Your task to perform on an android device: stop showing notifications on the lock screen Image 0: 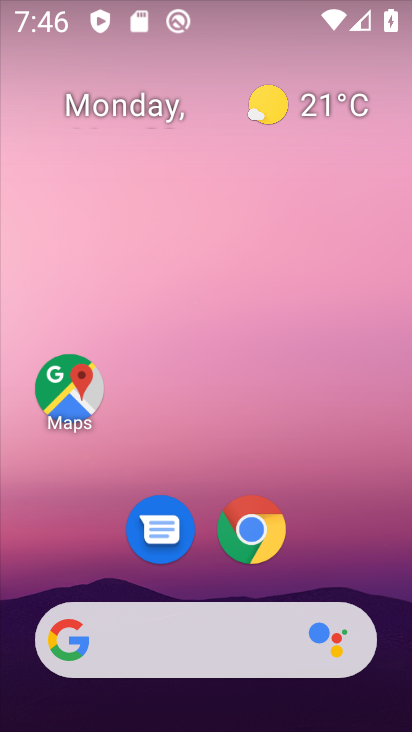
Step 0: drag from (345, 574) to (379, 28)
Your task to perform on an android device: stop showing notifications on the lock screen Image 1: 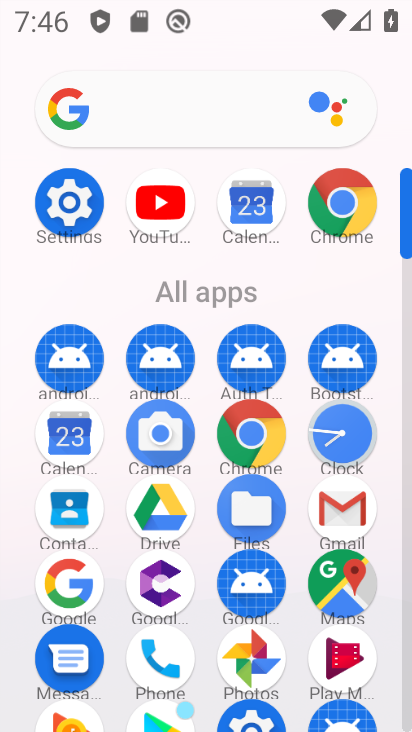
Step 1: click (68, 185)
Your task to perform on an android device: stop showing notifications on the lock screen Image 2: 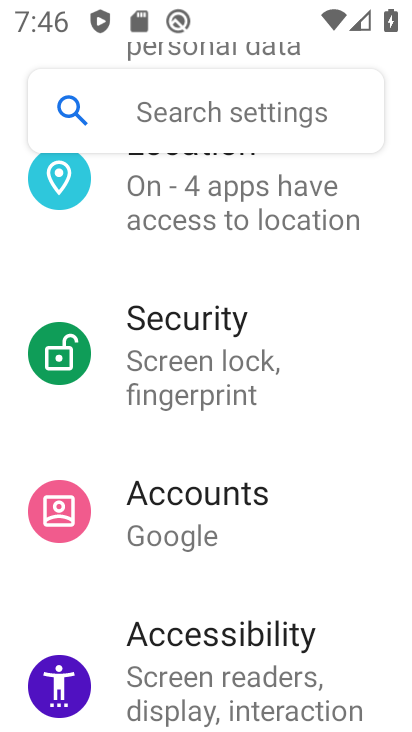
Step 2: drag from (214, 294) to (269, 523)
Your task to perform on an android device: stop showing notifications on the lock screen Image 3: 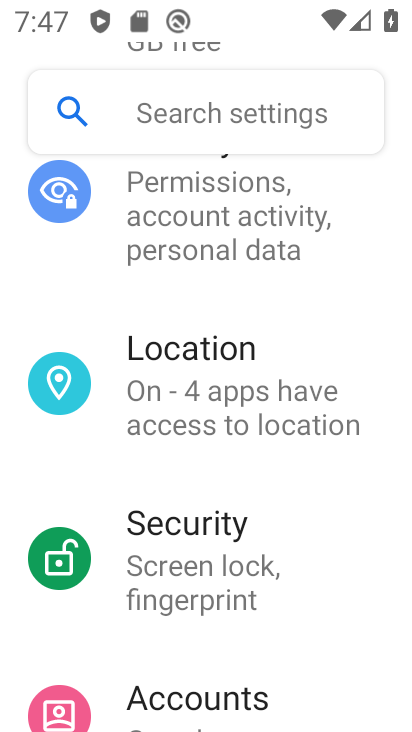
Step 3: drag from (260, 358) to (280, 510)
Your task to perform on an android device: stop showing notifications on the lock screen Image 4: 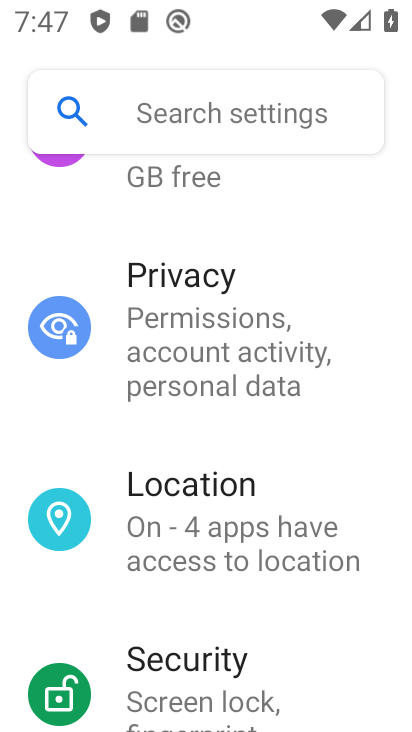
Step 4: drag from (239, 341) to (259, 490)
Your task to perform on an android device: stop showing notifications on the lock screen Image 5: 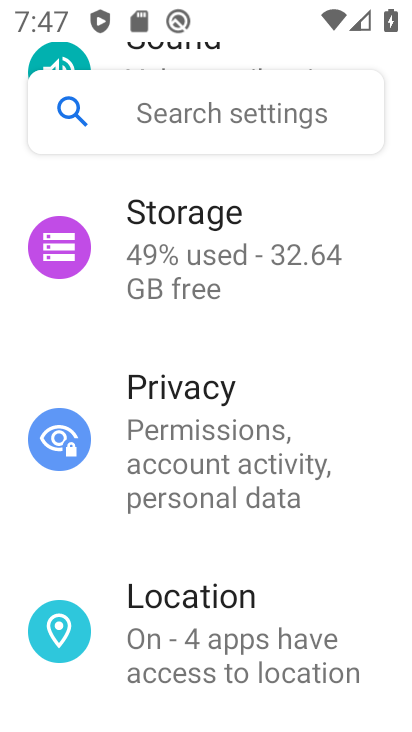
Step 5: drag from (226, 275) to (269, 420)
Your task to perform on an android device: stop showing notifications on the lock screen Image 6: 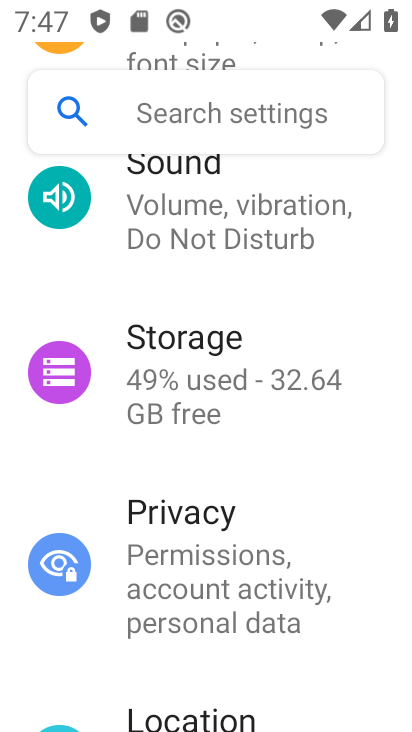
Step 6: drag from (227, 269) to (258, 457)
Your task to perform on an android device: stop showing notifications on the lock screen Image 7: 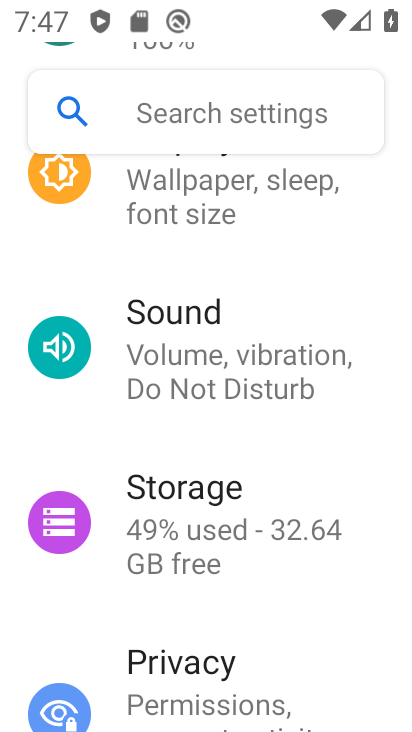
Step 7: drag from (236, 213) to (294, 420)
Your task to perform on an android device: stop showing notifications on the lock screen Image 8: 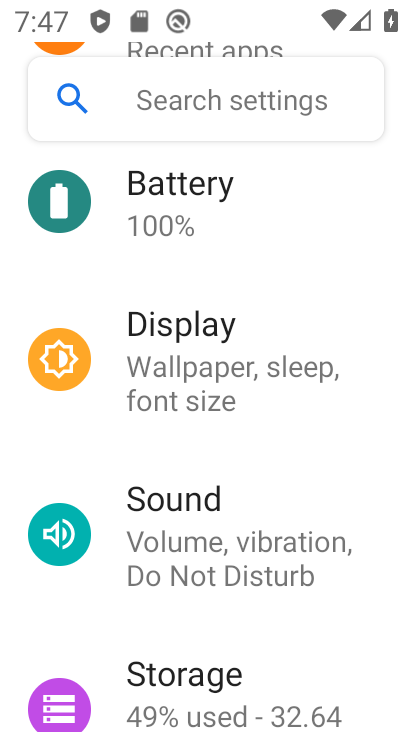
Step 8: drag from (281, 296) to (291, 449)
Your task to perform on an android device: stop showing notifications on the lock screen Image 9: 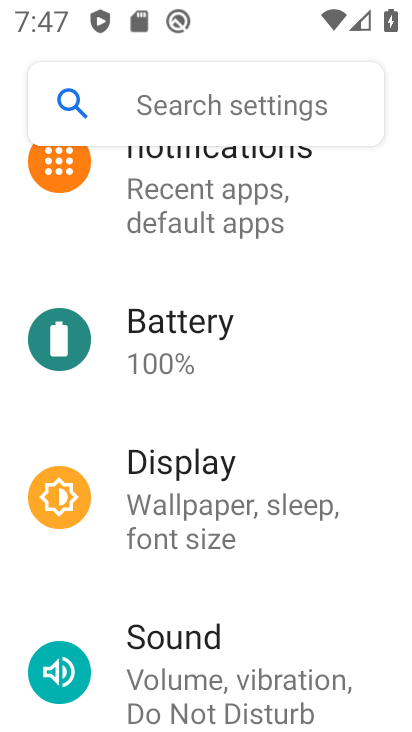
Step 9: click (263, 224)
Your task to perform on an android device: stop showing notifications on the lock screen Image 10: 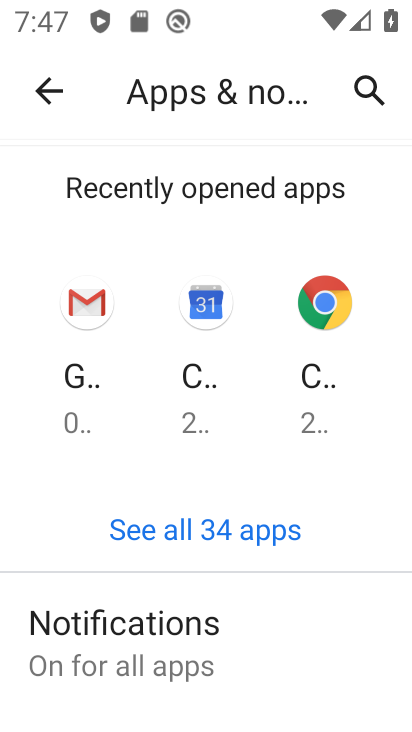
Step 10: click (252, 620)
Your task to perform on an android device: stop showing notifications on the lock screen Image 11: 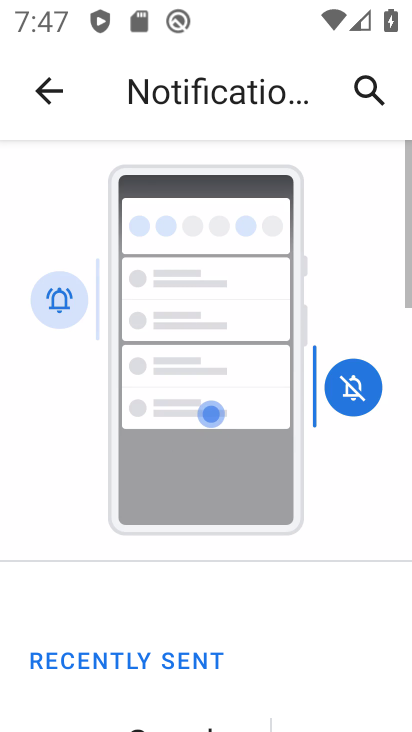
Step 11: drag from (238, 614) to (231, 205)
Your task to perform on an android device: stop showing notifications on the lock screen Image 12: 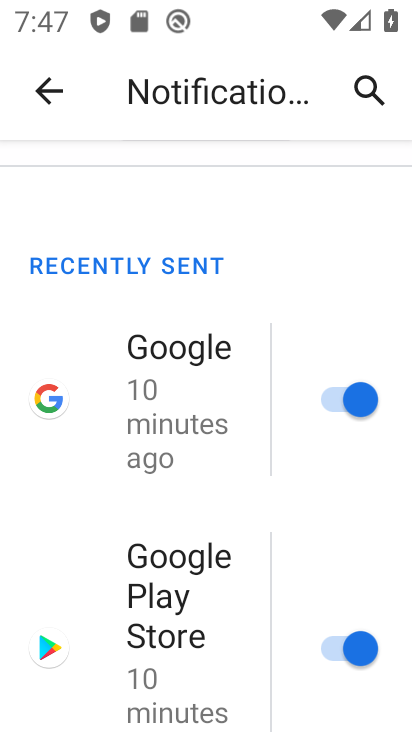
Step 12: drag from (237, 599) to (293, 199)
Your task to perform on an android device: stop showing notifications on the lock screen Image 13: 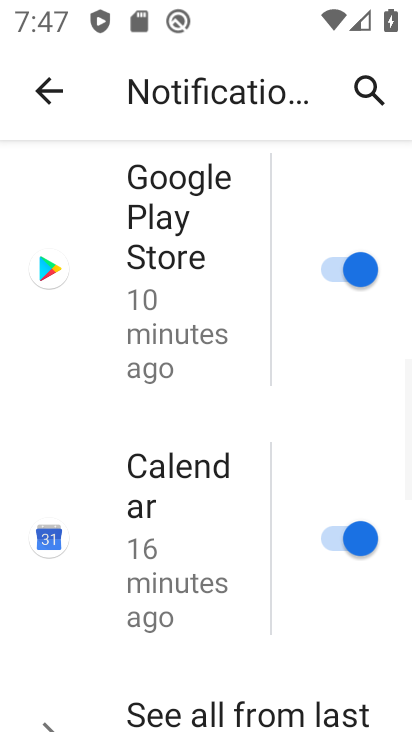
Step 13: drag from (188, 638) to (203, 272)
Your task to perform on an android device: stop showing notifications on the lock screen Image 14: 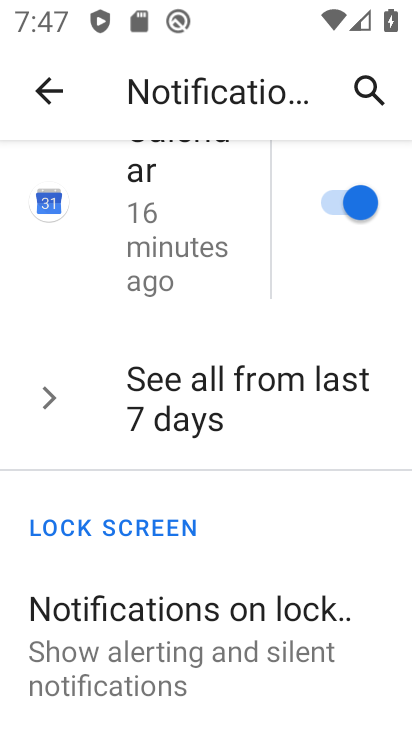
Step 14: click (166, 661)
Your task to perform on an android device: stop showing notifications on the lock screen Image 15: 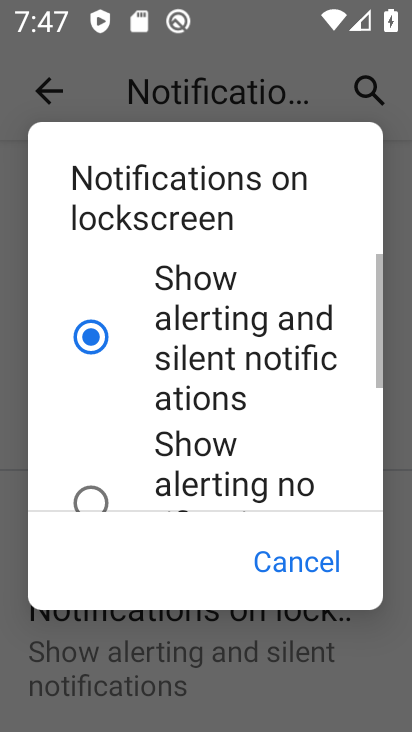
Step 15: drag from (232, 488) to (246, 235)
Your task to perform on an android device: stop showing notifications on the lock screen Image 16: 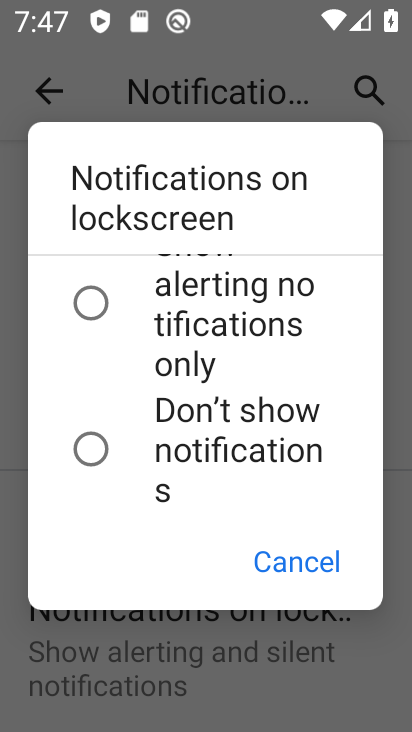
Step 16: click (210, 424)
Your task to perform on an android device: stop showing notifications on the lock screen Image 17: 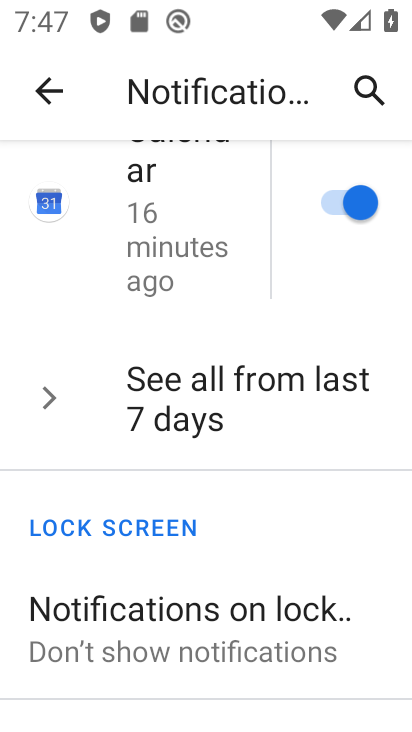
Step 17: task complete